Your task to perform on an android device: open wifi settings Image 0: 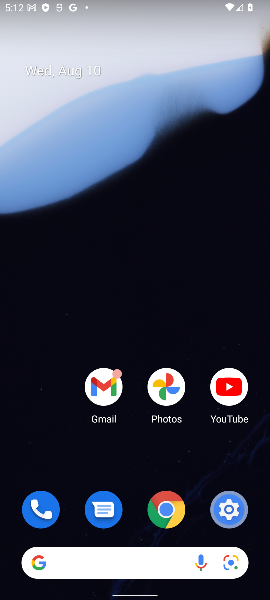
Step 0: drag from (128, 456) to (163, 58)
Your task to perform on an android device: open wifi settings Image 1: 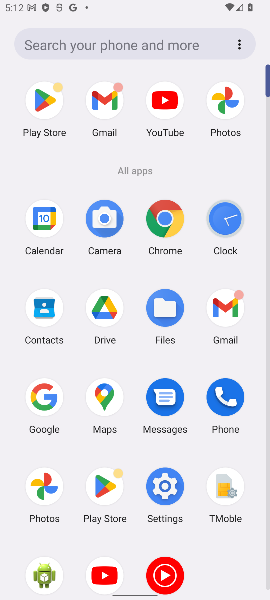
Step 1: click (161, 493)
Your task to perform on an android device: open wifi settings Image 2: 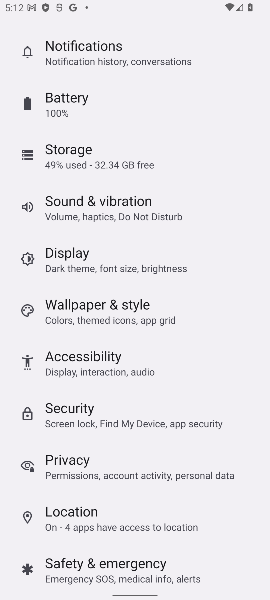
Step 2: drag from (98, 95) to (94, 471)
Your task to perform on an android device: open wifi settings Image 3: 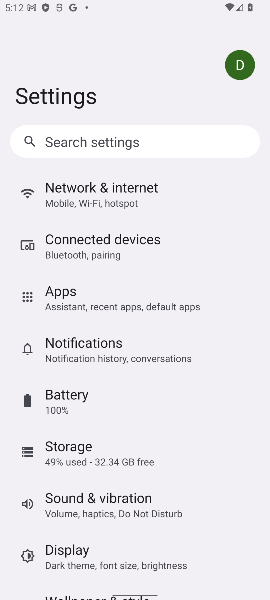
Step 3: click (87, 198)
Your task to perform on an android device: open wifi settings Image 4: 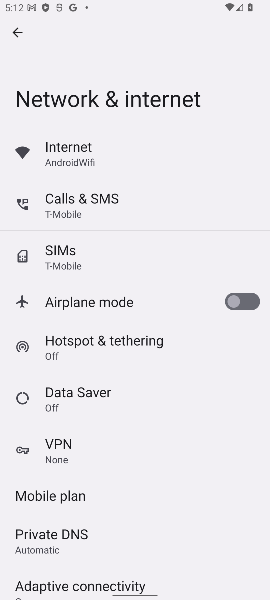
Step 4: click (74, 139)
Your task to perform on an android device: open wifi settings Image 5: 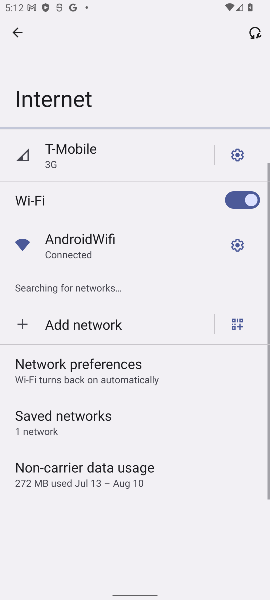
Step 5: click (244, 248)
Your task to perform on an android device: open wifi settings Image 6: 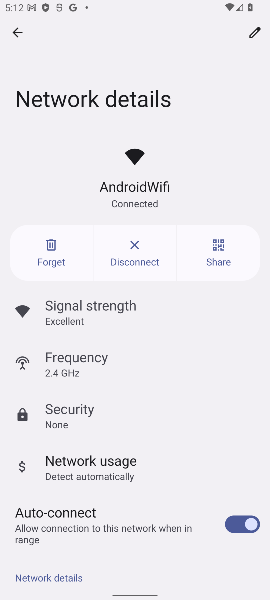
Step 6: task complete